Your task to perform on an android device: Show me popular games on the Play Store Image 0: 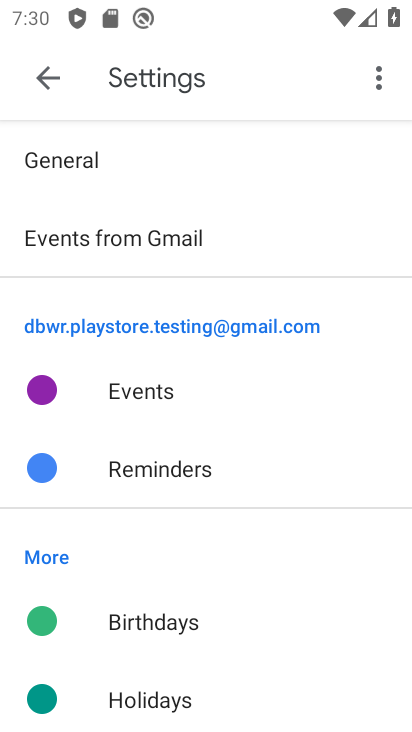
Step 0: press home button
Your task to perform on an android device: Show me popular games on the Play Store Image 1: 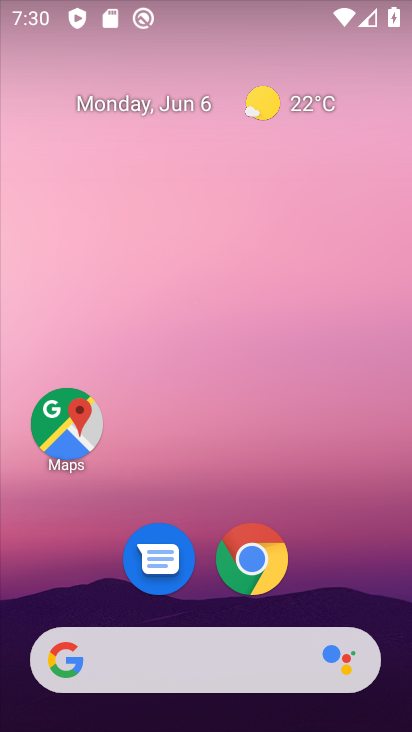
Step 1: click (216, 221)
Your task to perform on an android device: Show me popular games on the Play Store Image 2: 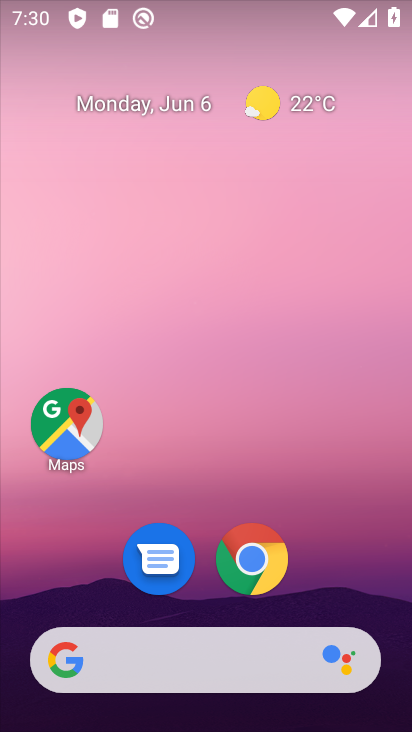
Step 2: drag from (180, 395) to (203, 251)
Your task to perform on an android device: Show me popular games on the Play Store Image 3: 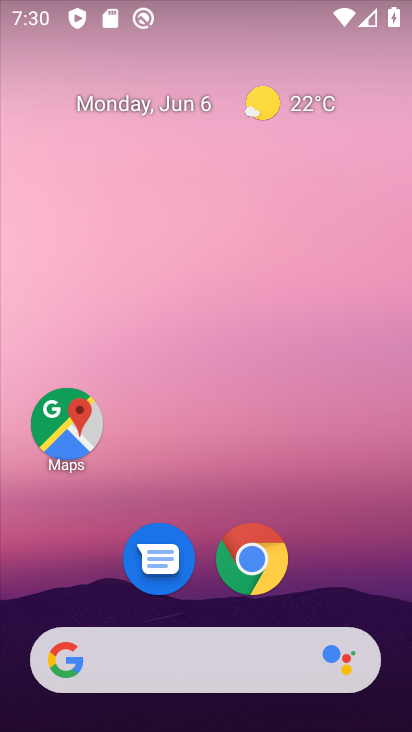
Step 3: drag from (333, 581) to (360, 220)
Your task to perform on an android device: Show me popular games on the Play Store Image 4: 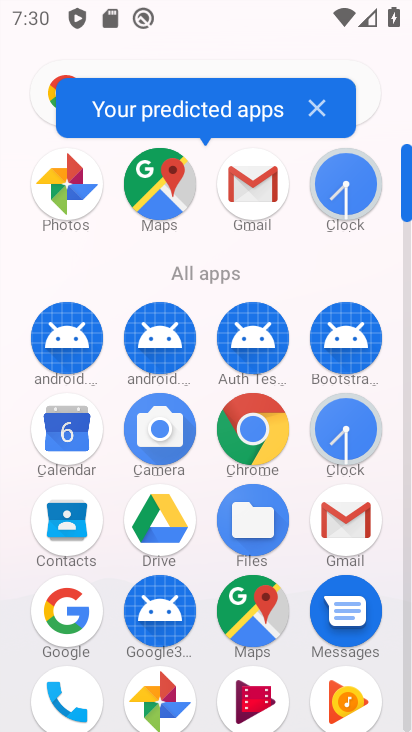
Step 4: drag from (202, 665) to (223, 307)
Your task to perform on an android device: Show me popular games on the Play Store Image 5: 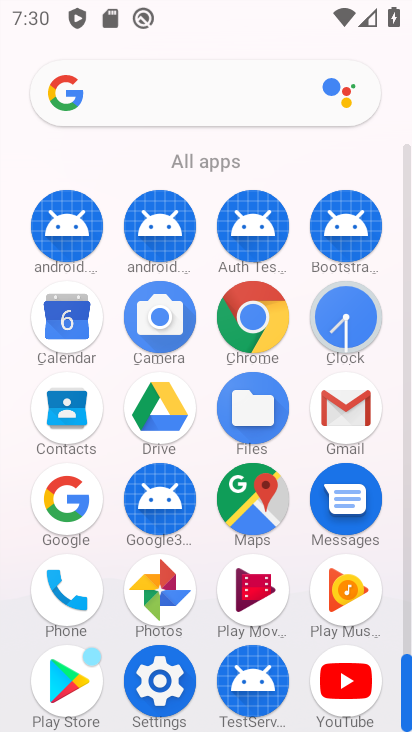
Step 5: click (61, 660)
Your task to perform on an android device: Show me popular games on the Play Store Image 6: 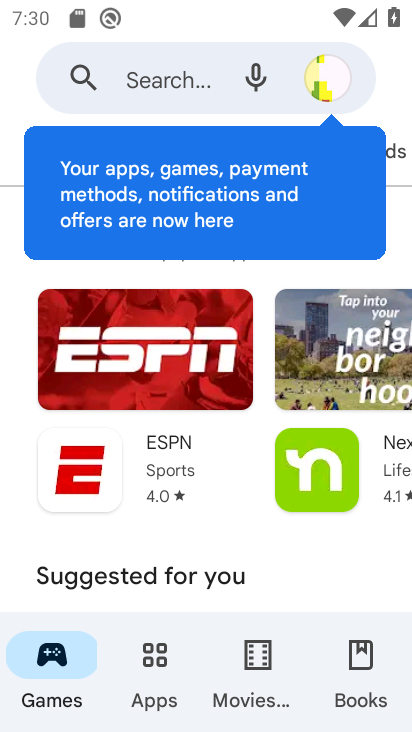
Step 6: click (155, 77)
Your task to perform on an android device: Show me popular games on the Play Store Image 7: 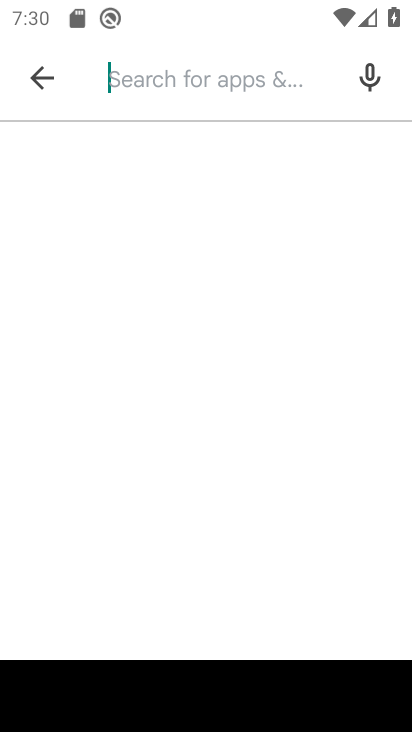
Step 7: type "popular games"
Your task to perform on an android device: Show me popular games on the Play Store Image 8: 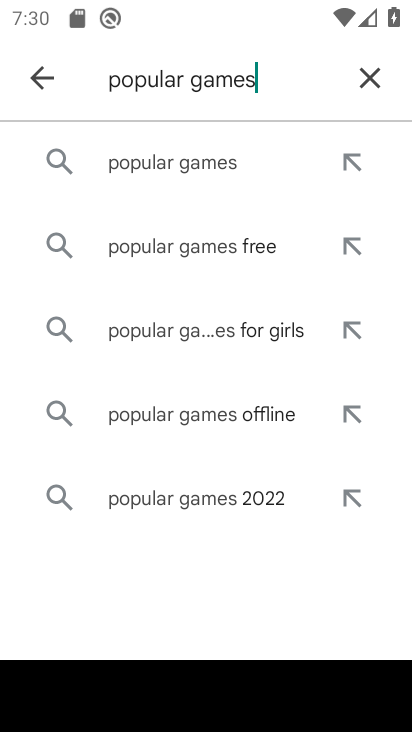
Step 8: click (184, 154)
Your task to perform on an android device: Show me popular games on the Play Store Image 9: 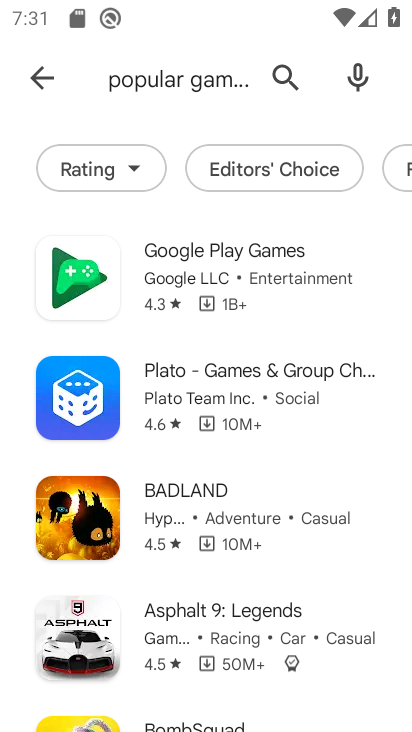
Step 9: task complete